Your task to perform on an android device: What's on my calendar today? Image 0: 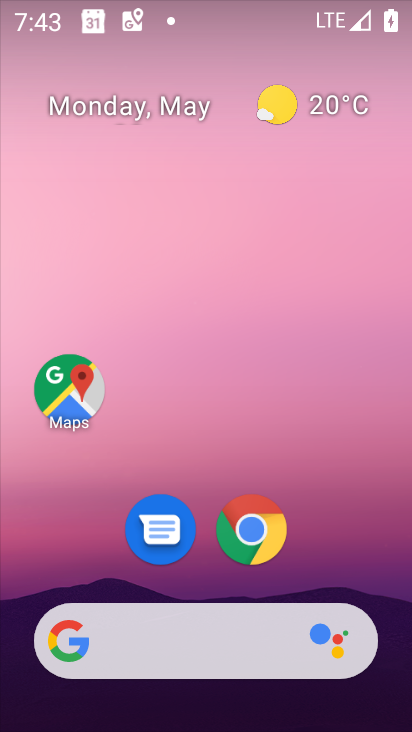
Step 0: drag from (23, 664) to (329, 130)
Your task to perform on an android device: What's on my calendar today? Image 1: 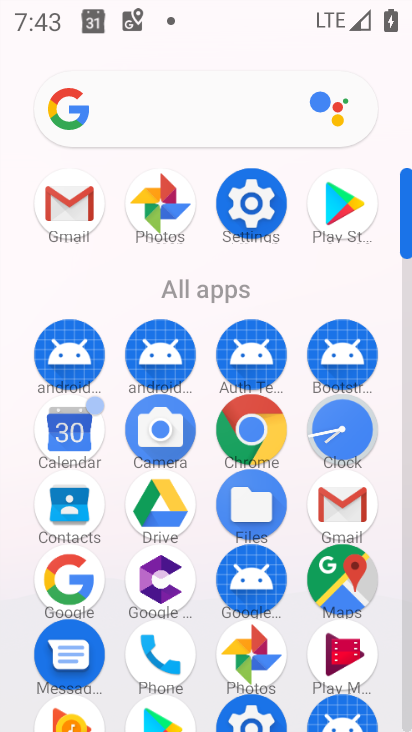
Step 1: click (63, 442)
Your task to perform on an android device: What's on my calendar today? Image 2: 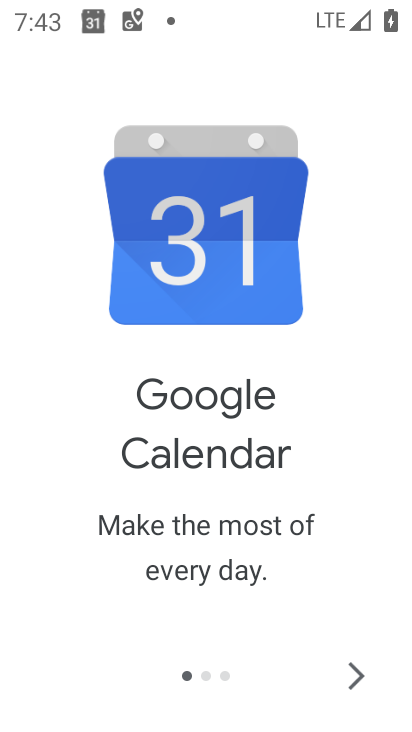
Step 2: click (349, 679)
Your task to perform on an android device: What's on my calendar today? Image 3: 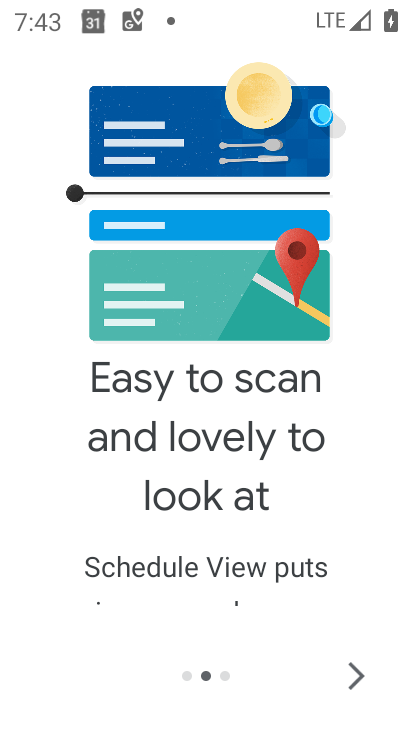
Step 3: click (355, 672)
Your task to perform on an android device: What's on my calendar today? Image 4: 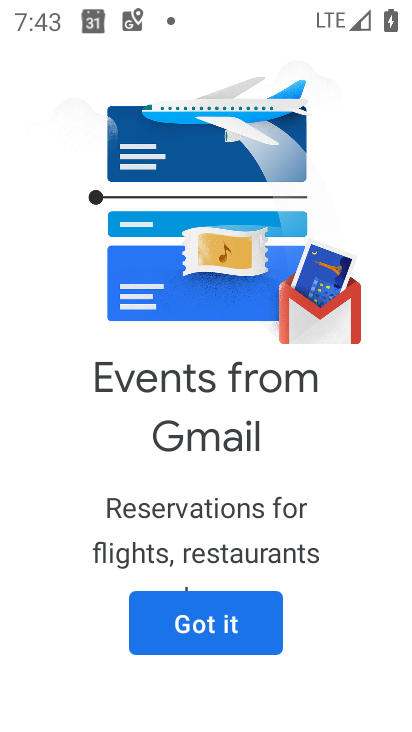
Step 4: click (228, 629)
Your task to perform on an android device: What's on my calendar today? Image 5: 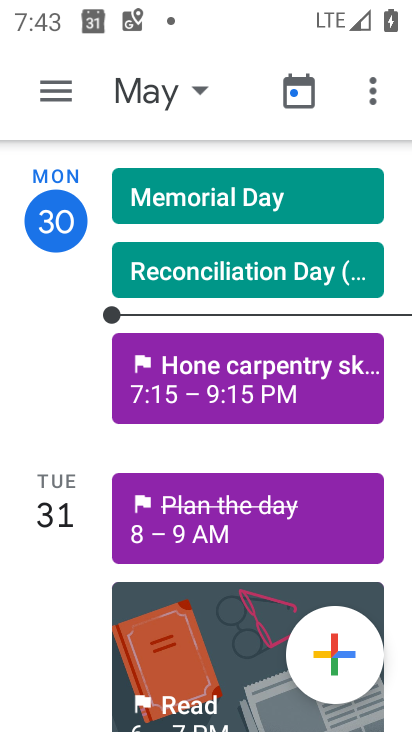
Step 5: click (162, 90)
Your task to perform on an android device: What's on my calendar today? Image 6: 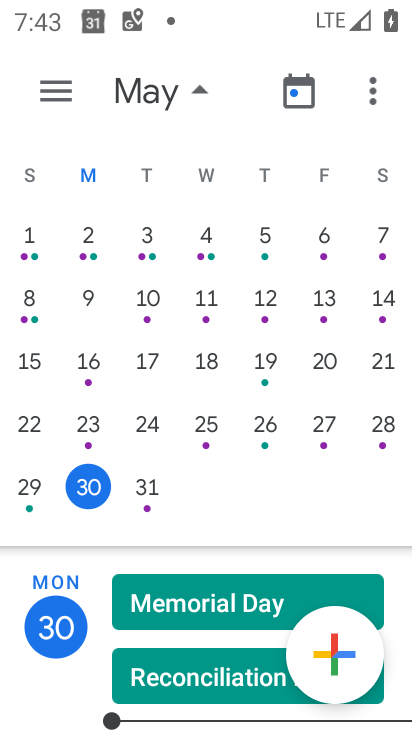
Step 6: click (81, 492)
Your task to perform on an android device: What's on my calendar today? Image 7: 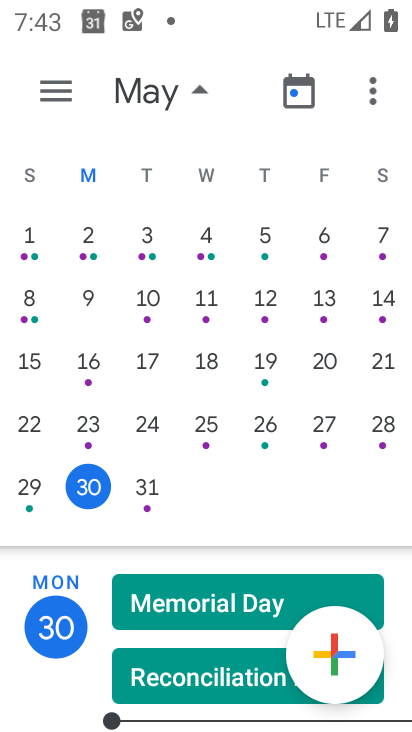
Step 7: task complete